Your task to perform on an android device: allow cookies in the chrome app Image 0: 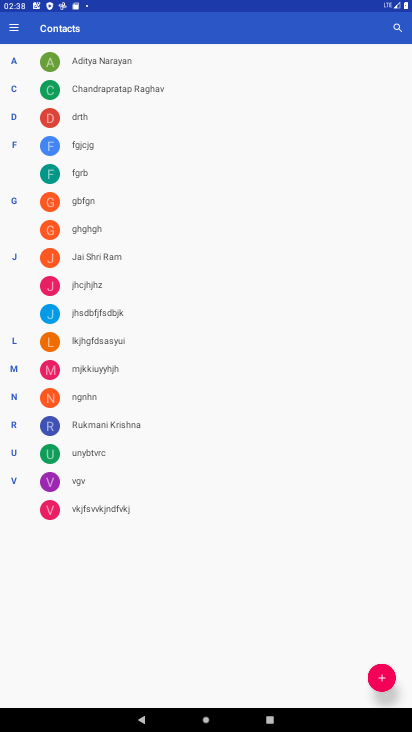
Step 0: press home button
Your task to perform on an android device: allow cookies in the chrome app Image 1: 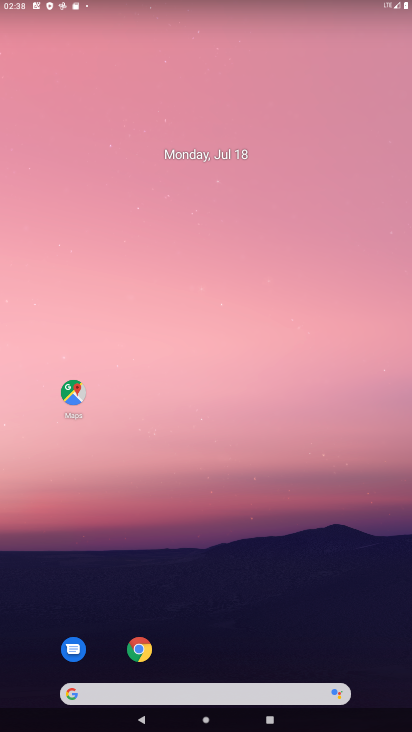
Step 1: click (133, 655)
Your task to perform on an android device: allow cookies in the chrome app Image 2: 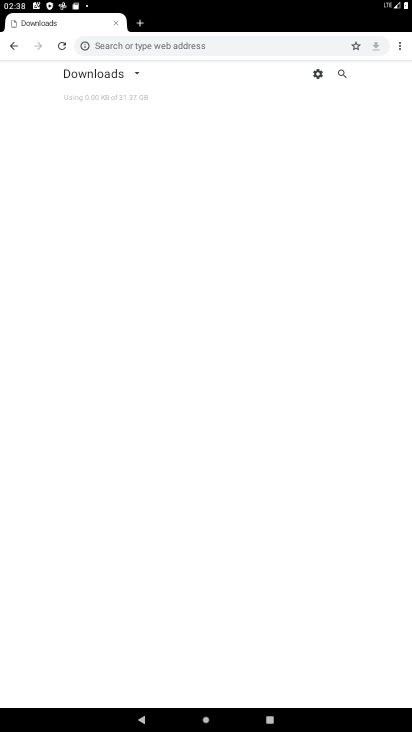
Step 2: click (401, 46)
Your task to perform on an android device: allow cookies in the chrome app Image 3: 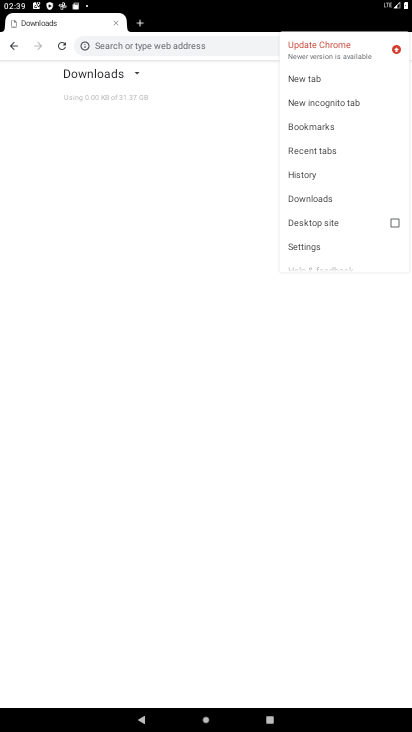
Step 3: click (308, 249)
Your task to perform on an android device: allow cookies in the chrome app Image 4: 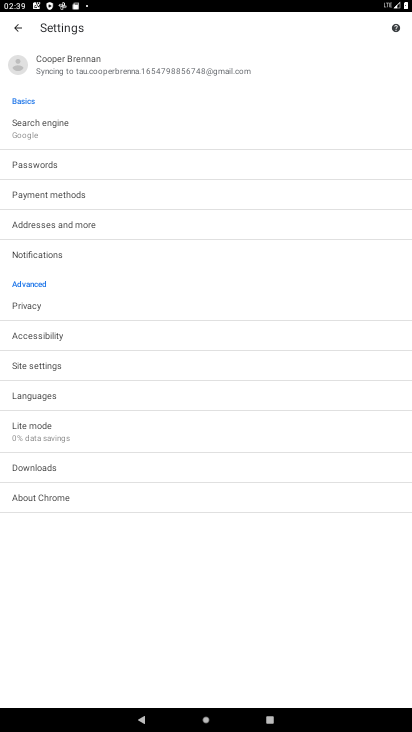
Step 4: click (64, 364)
Your task to perform on an android device: allow cookies in the chrome app Image 5: 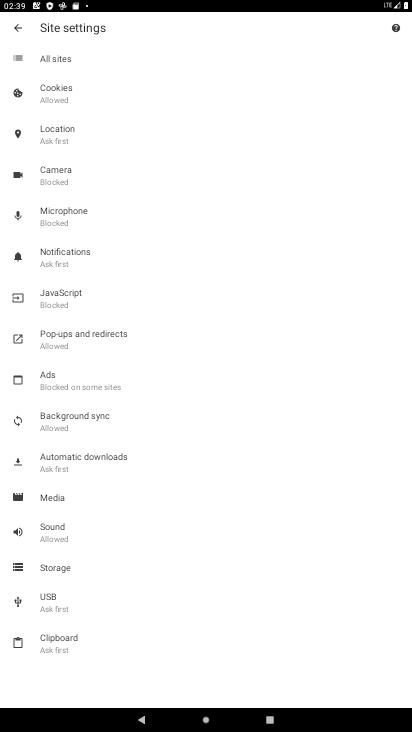
Step 5: click (69, 95)
Your task to perform on an android device: allow cookies in the chrome app Image 6: 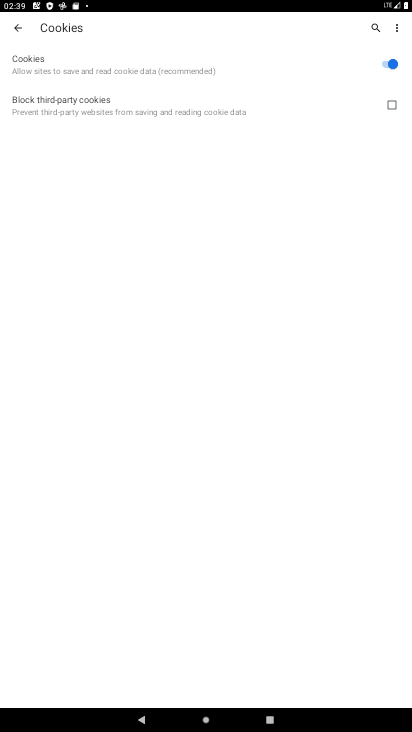
Step 6: task complete